Your task to perform on an android device: change the clock display to show seconds Image 0: 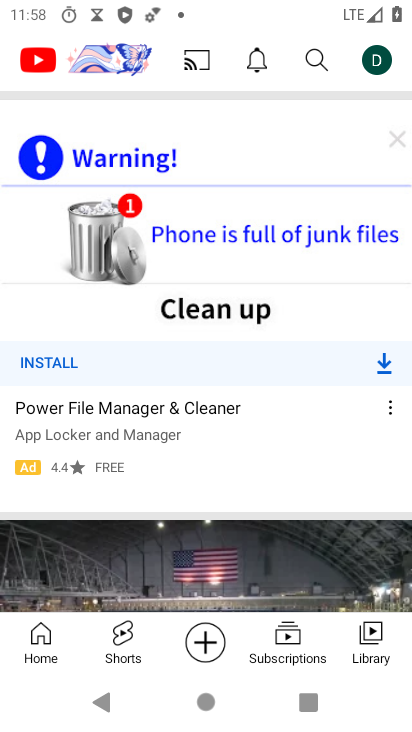
Step 0: press home button
Your task to perform on an android device: change the clock display to show seconds Image 1: 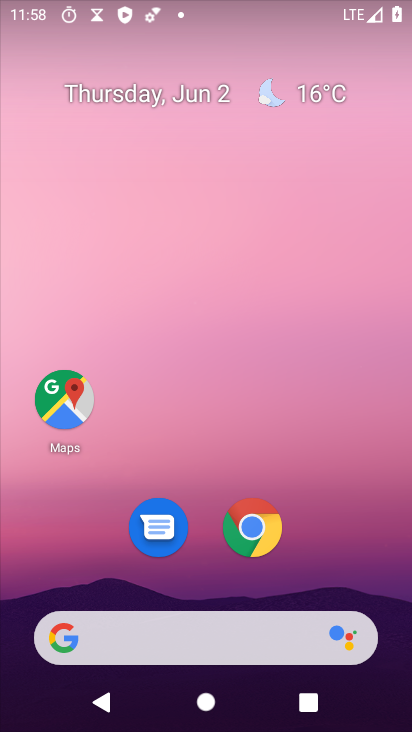
Step 1: drag from (130, 621) to (0, 376)
Your task to perform on an android device: change the clock display to show seconds Image 2: 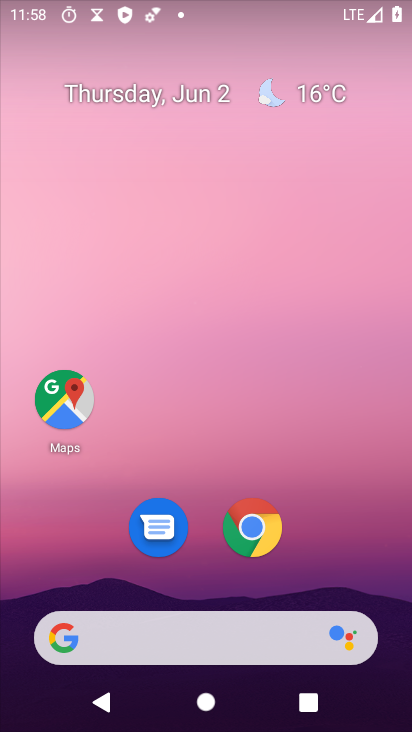
Step 2: click (345, 402)
Your task to perform on an android device: change the clock display to show seconds Image 3: 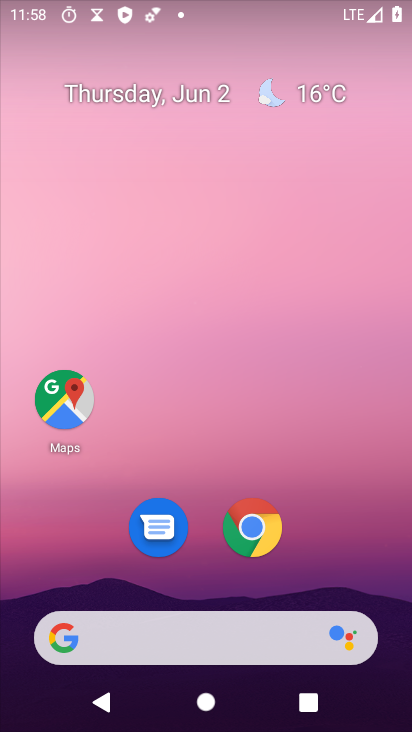
Step 3: drag from (181, 656) to (161, 246)
Your task to perform on an android device: change the clock display to show seconds Image 4: 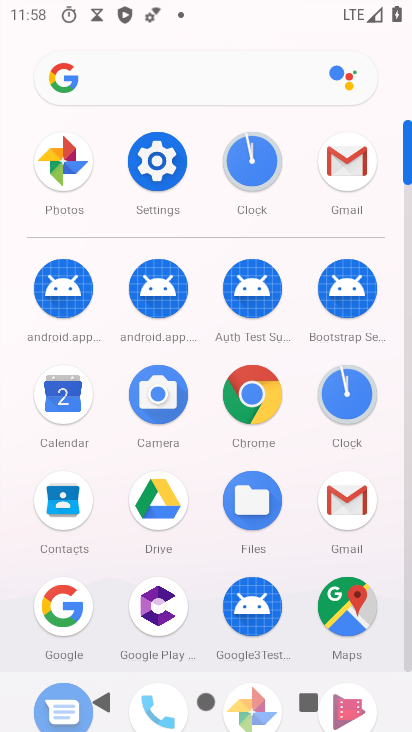
Step 4: click (344, 397)
Your task to perform on an android device: change the clock display to show seconds Image 5: 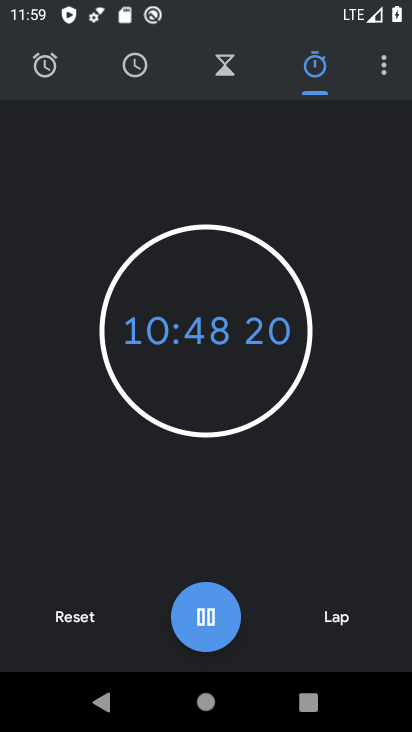
Step 5: click (385, 58)
Your task to perform on an android device: change the clock display to show seconds Image 6: 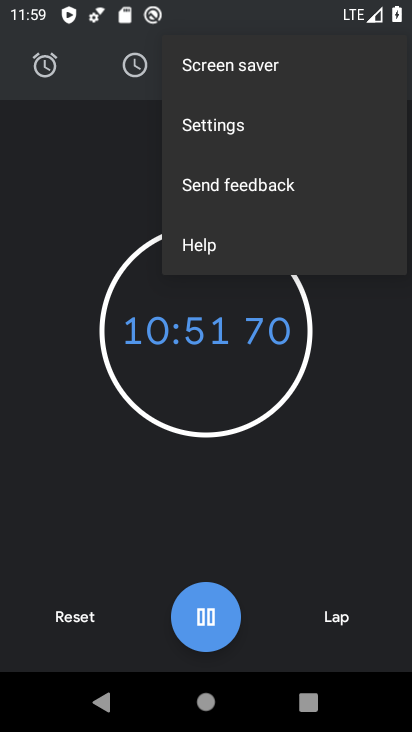
Step 6: click (267, 129)
Your task to perform on an android device: change the clock display to show seconds Image 7: 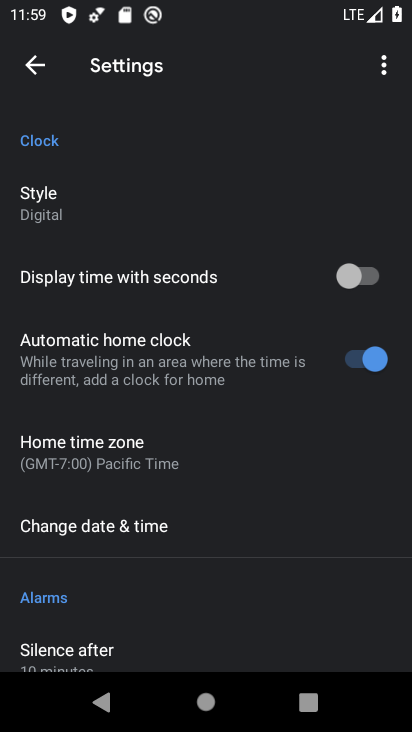
Step 7: click (352, 273)
Your task to perform on an android device: change the clock display to show seconds Image 8: 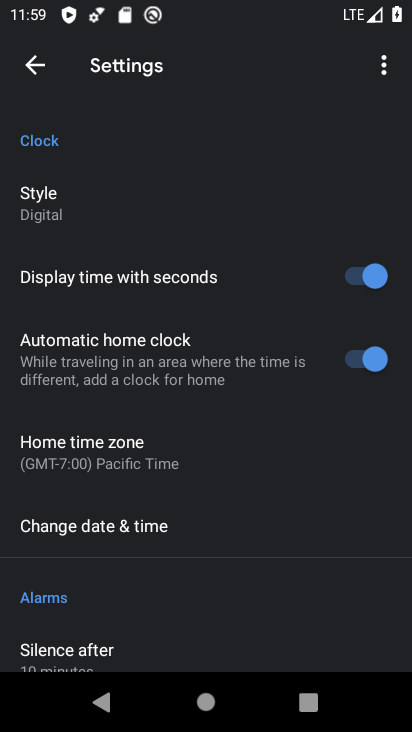
Step 8: task complete